Your task to perform on an android device: Go to sound settings Image 0: 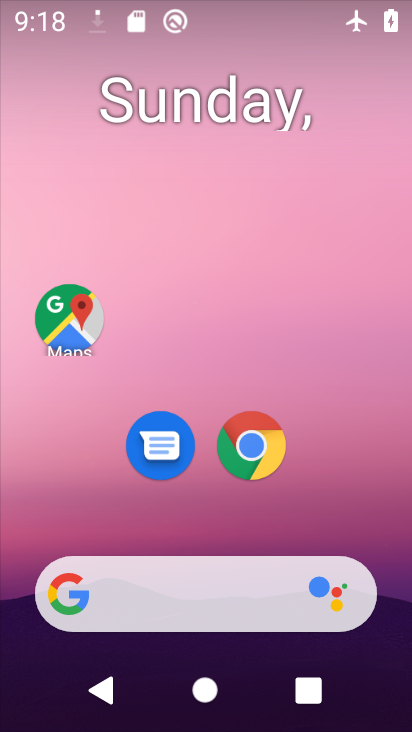
Step 0: drag from (337, 502) to (264, 0)
Your task to perform on an android device: Go to sound settings Image 1: 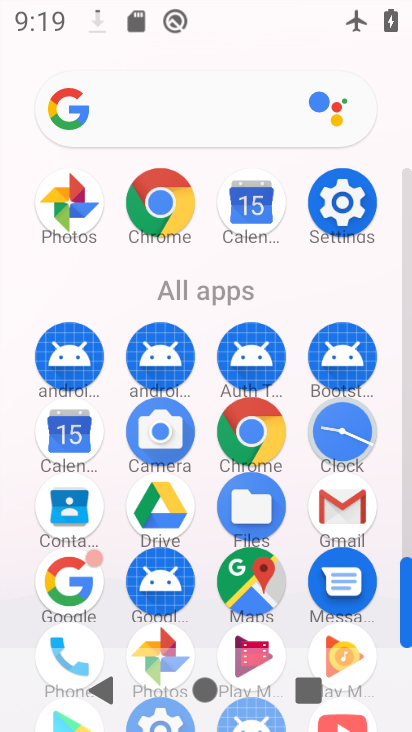
Step 1: click (340, 200)
Your task to perform on an android device: Go to sound settings Image 2: 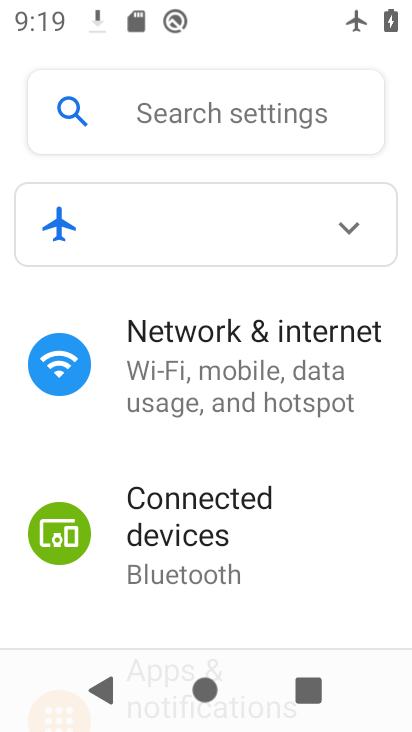
Step 2: drag from (333, 549) to (303, 155)
Your task to perform on an android device: Go to sound settings Image 3: 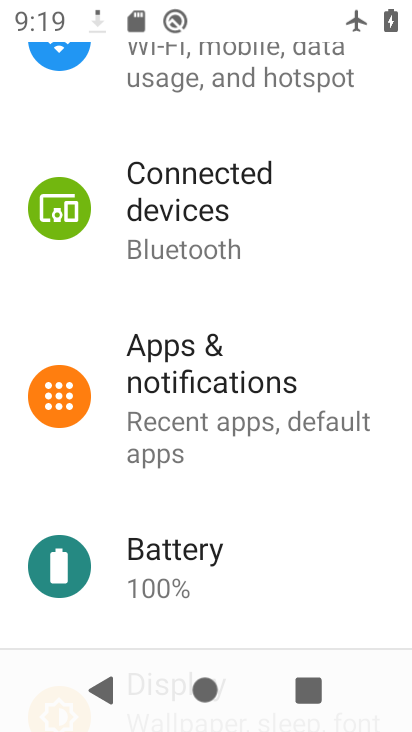
Step 3: drag from (266, 561) to (257, 156)
Your task to perform on an android device: Go to sound settings Image 4: 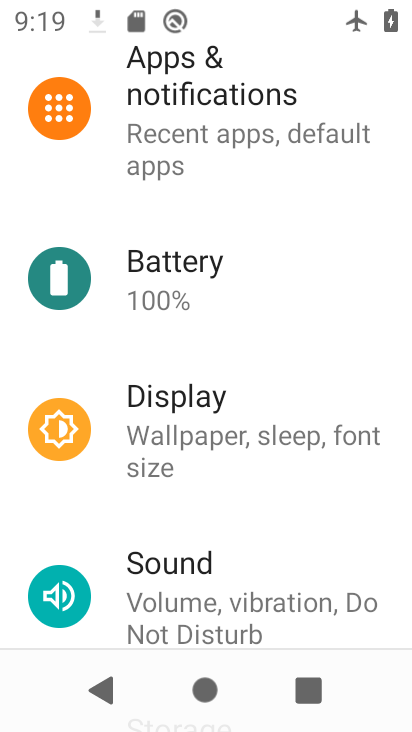
Step 4: click (212, 589)
Your task to perform on an android device: Go to sound settings Image 5: 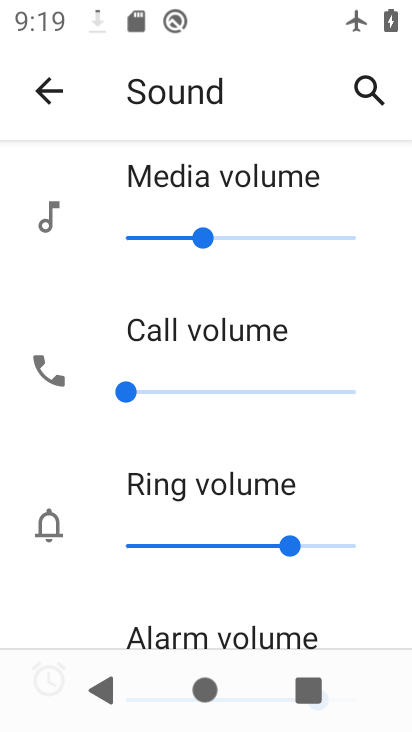
Step 5: task complete